Your task to perform on an android device: turn on priority inbox in the gmail app Image 0: 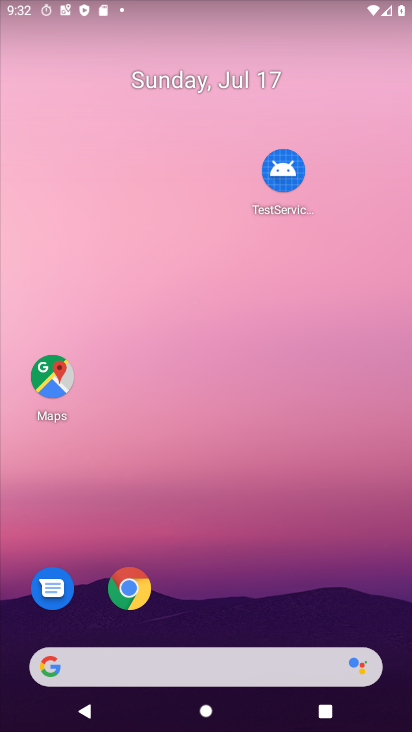
Step 0: drag from (225, 671) to (322, 123)
Your task to perform on an android device: turn on priority inbox in the gmail app Image 1: 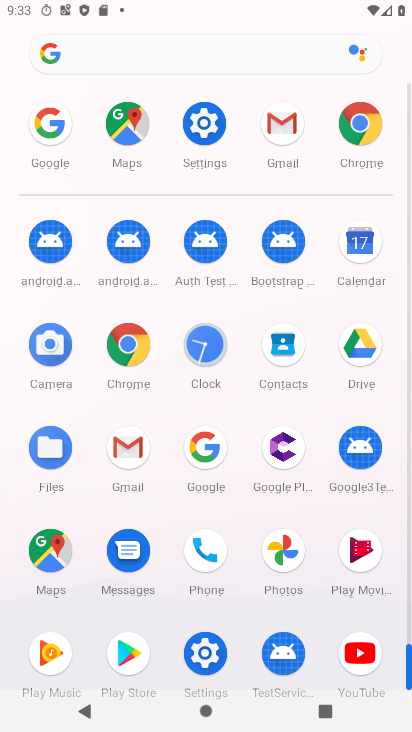
Step 1: click (138, 458)
Your task to perform on an android device: turn on priority inbox in the gmail app Image 2: 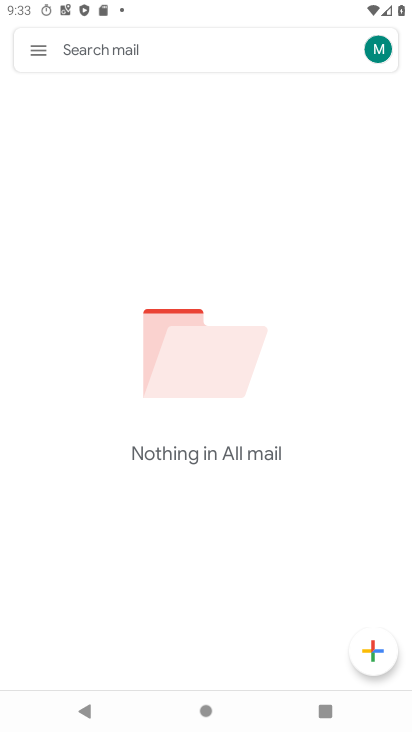
Step 2: drag from (200, 515) to (198, 317)
Your task to perform on an android device: turn on priority inbox in the gmail app Image 3: 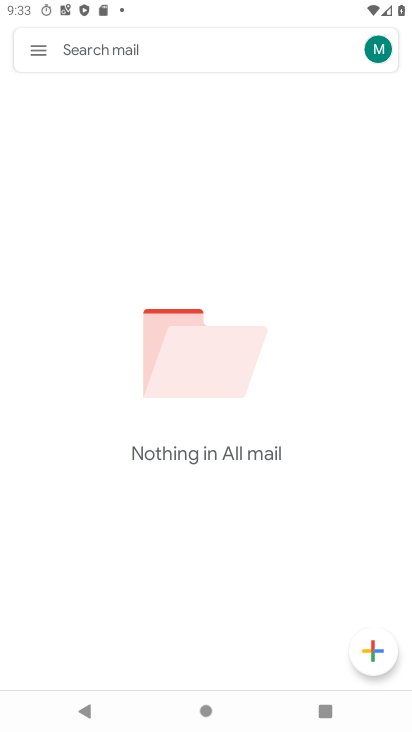
Step 3: click (39, 48)
Your task to perform on an android device: turn on priority inbox in the gmail app Image 4: 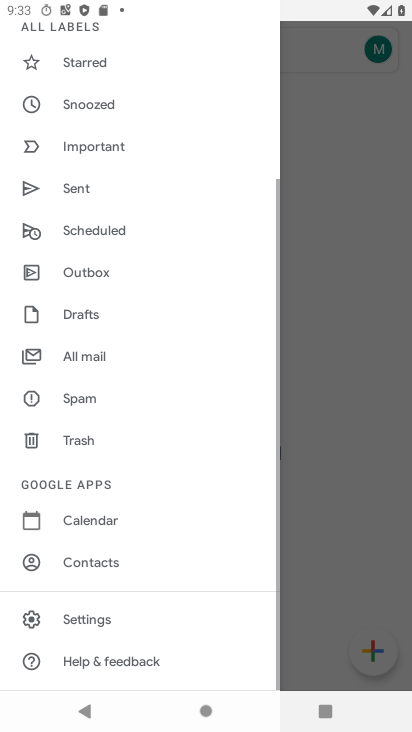
Step 4: drag from (79, 583) to (115, 327)
Your task to perform on an android device: turn on priority inbox in the gmail app Image 5: 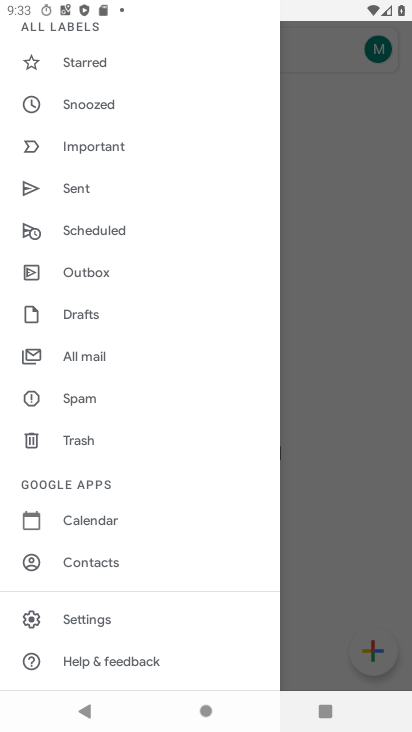
Step 5: click (93, 613)
Your task to perform on an android device: turn on priority inbox in the gmail app Image 6: 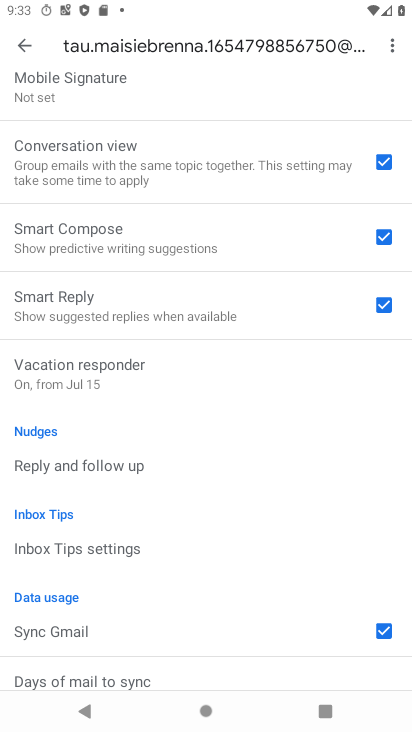
Step 6: task complete